Your task to perform on an android device: open app "HBO Max: Stream TV & Movies" (install if not already installed) Image 0: 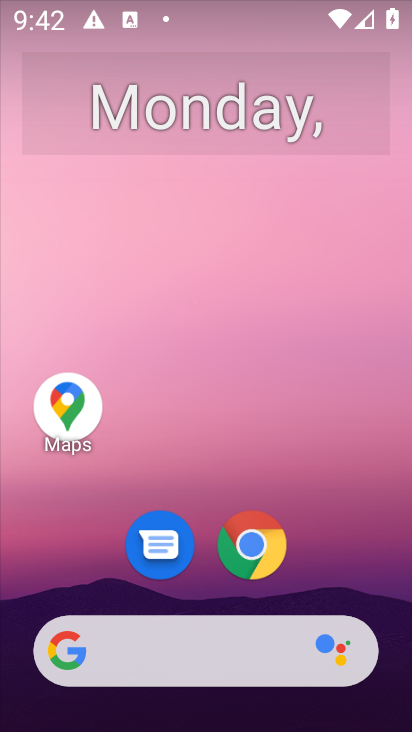
Step 0: press home button
Your task to perform on an android device: open app "HBO Max: Stream TV & Movies" (install if not already installed) Image 1: 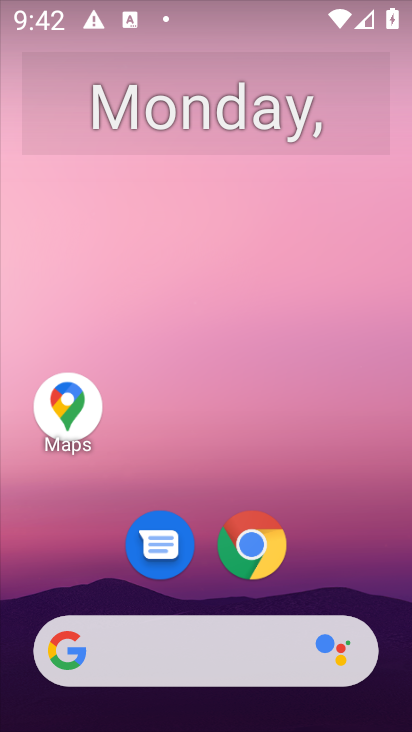
Step 1: drag from (372, 593) to (368, 95)
Your task to perform on an android device: open app "HBO Max: Stream TV & Movies" (install if not already installed) Image 2: 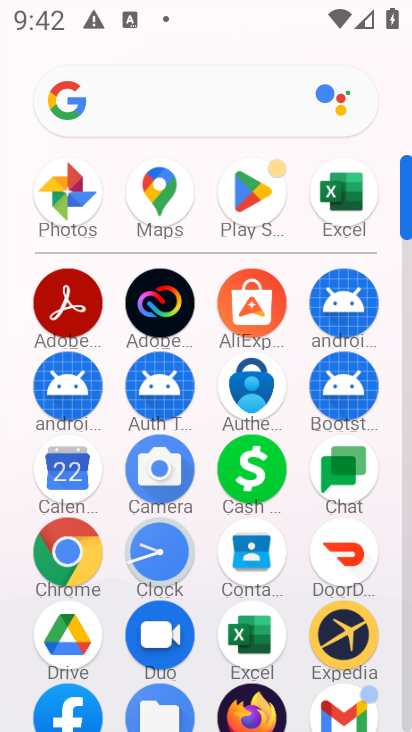
Step 2: click (262, 191)
Your task to perform on an android device: open app "HBO Max: Stream TV & Movies" (install if not already installed) Image 3: 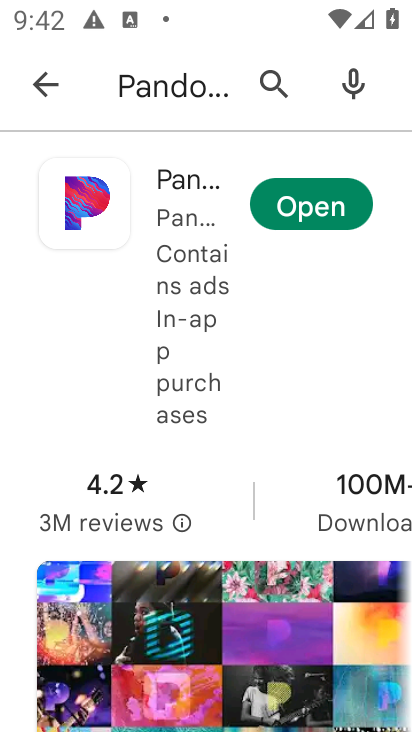
Step 3: press back button
Your task to perform on an android device: open app "HBO Max: Stream TV & Movies" (install if not already installed) Image 4: 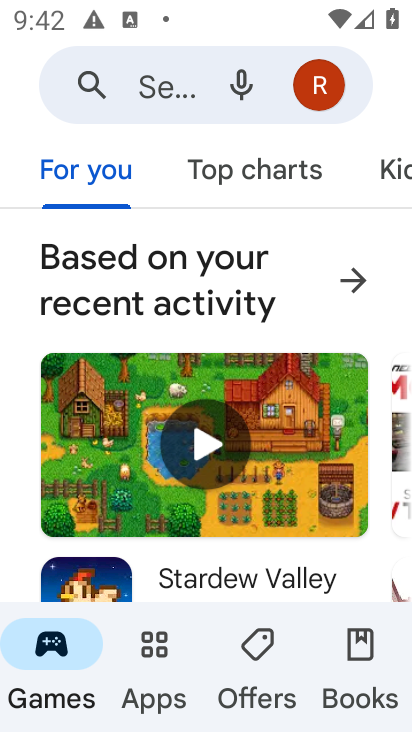
Step 4: click (170, 86)
Your task to perform on an android device: open app "HBO Max: Stream TV & Movies" (install if not already installed) Image 5: 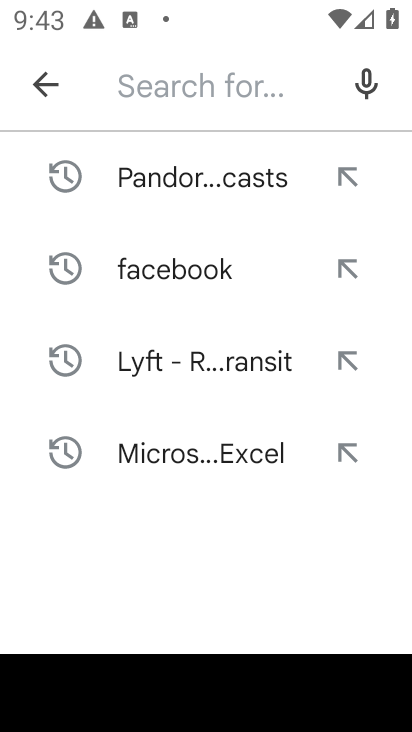
Step 5: type "HBO Max: Stream TV & Movies"
Your task to perform on an android device: open app "HBO Max: Stream TV & Movies" (install if not already installed) Image 6: 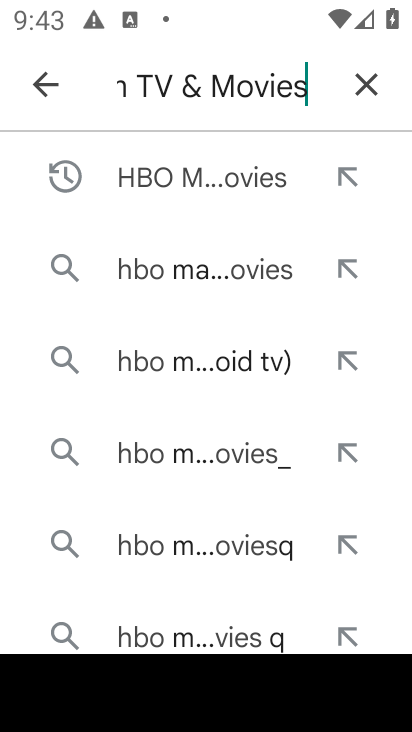
Step 6: press enter
Your task to perform on an android device: open app "HBO Max: Stream TV & Movies" (install if not already installed) Image 7: 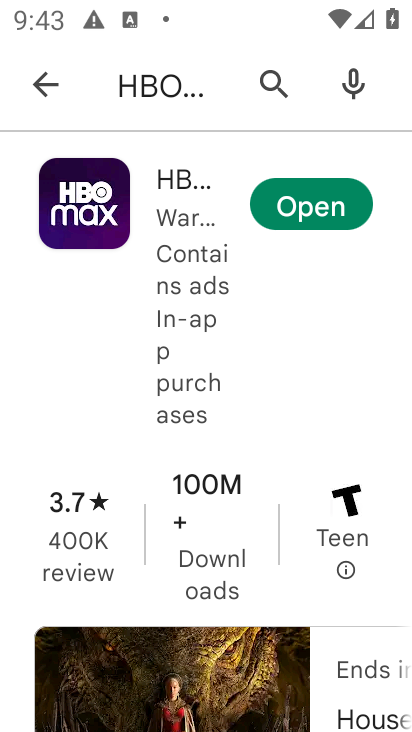
Step 7: click (316, 207)
Your task to perform on an android device: open app "HBO Max: Stream TV & Movies" (install if not already installed) Image 8: 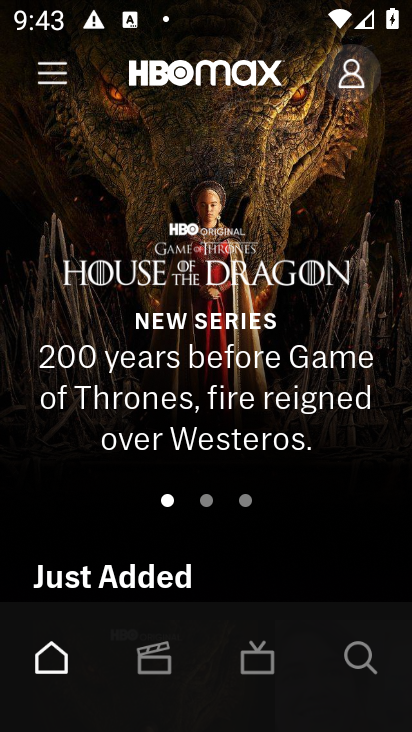
Step 8: task complete